Your task to perform on an android device: Find coffee shops on Maps Image 0: 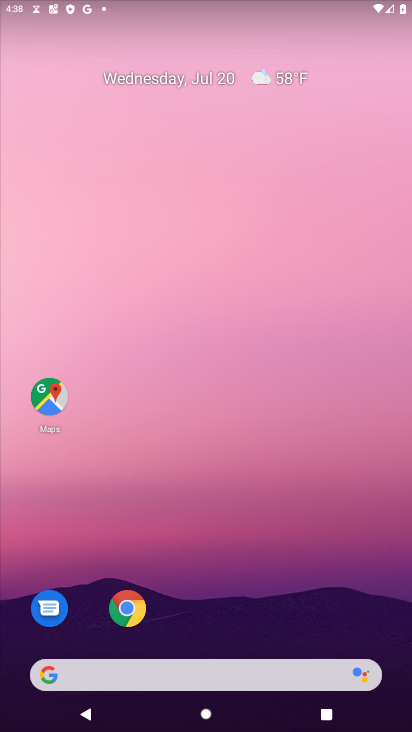
Step 0: click (62, 403)
Your task to perform on an android device: Find coffee shops on Maps Image 1: 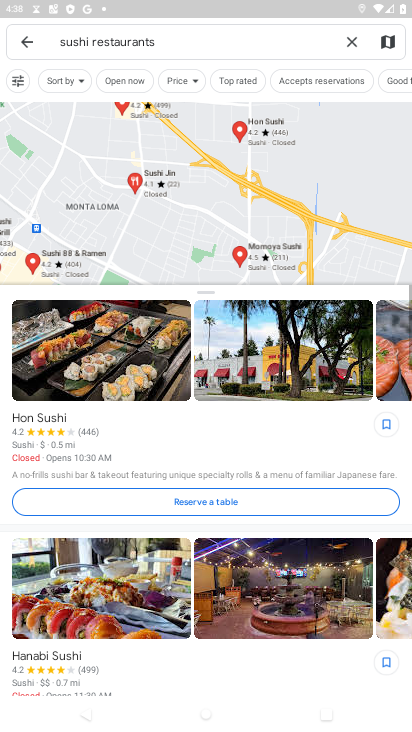
Step 1: click (351, 45)
Your task to perform on an android device: Find coffee shops on Maps Image 2: 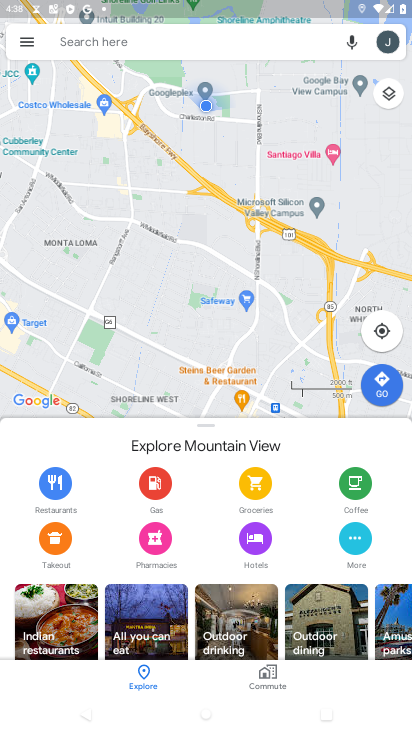
Step 2: click (166, 46)
Your task to perform on an android device: Find coffee shops on Maps Image 3: 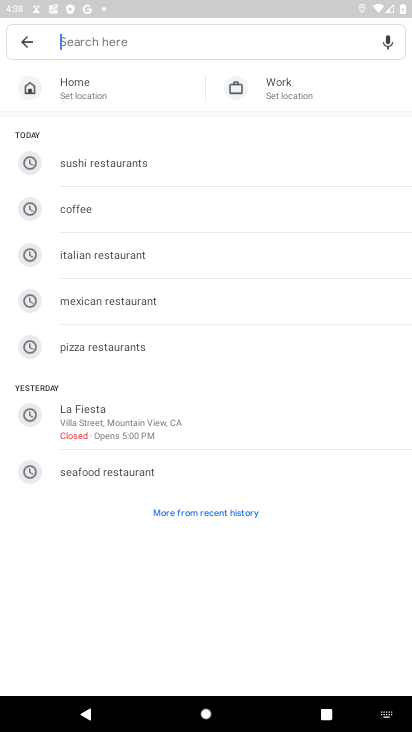
Step 3: type "coffee shops"
Your task to perform on an android device: Find coffee shops on Maps Image 4: 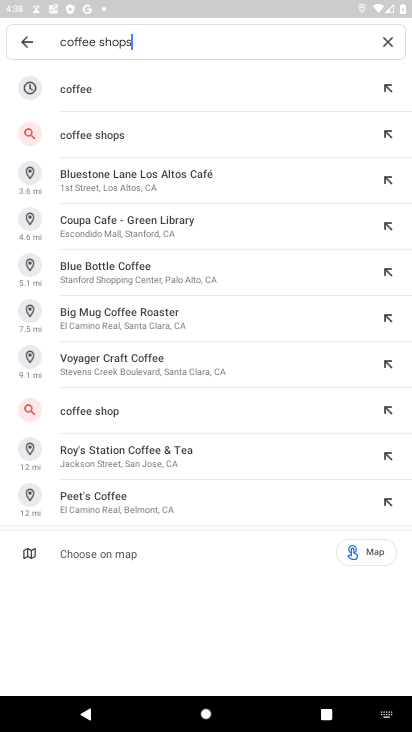
Step 4: click (170, 144)
Your task to perform on an android device: Find coffee shops on Maps Image 5: 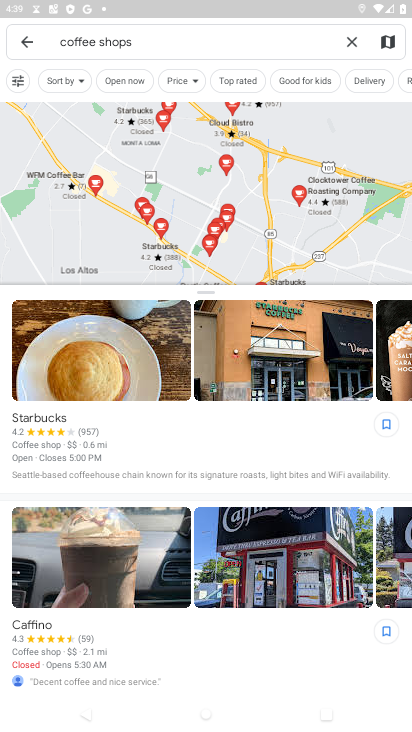
Step 5: task complete